Your task to perform on an android device: toggle airplane mode Image 0: 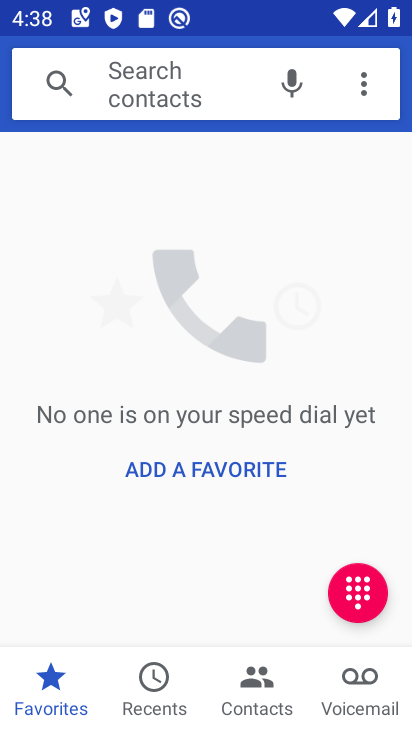
Step 0: press back button
Your task to perform on an android device: toggle airplane mode Image 1: 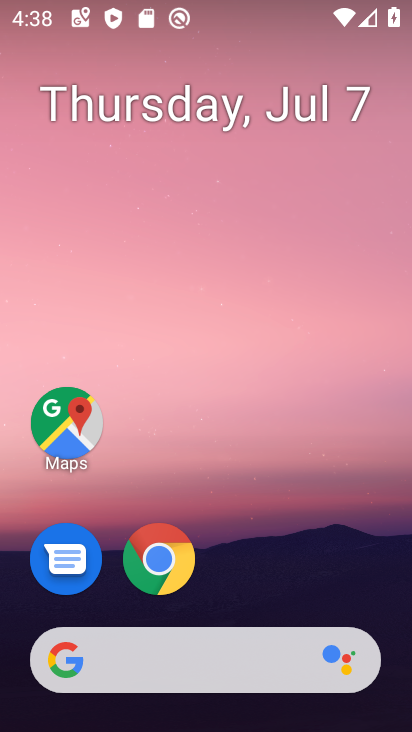
Step 1: drag from (290, 12) to (235, 671)
Your task to perform on an android device: toggle airplane mode Image 2: 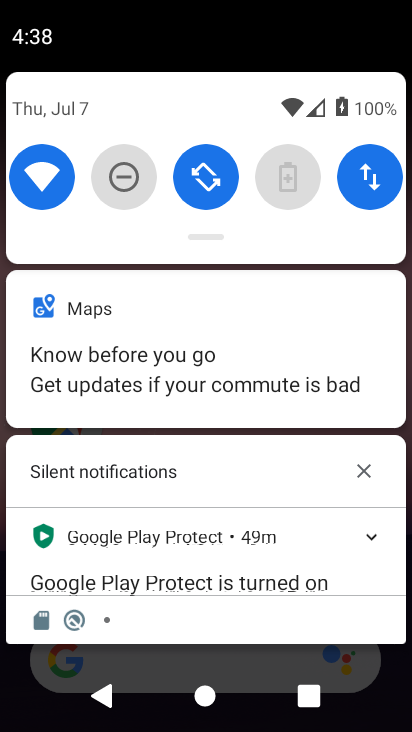
Step 2: drag from (213, 243) to (204, 698)
Your task to perform on an android device: toggle airplane mode Image 3: 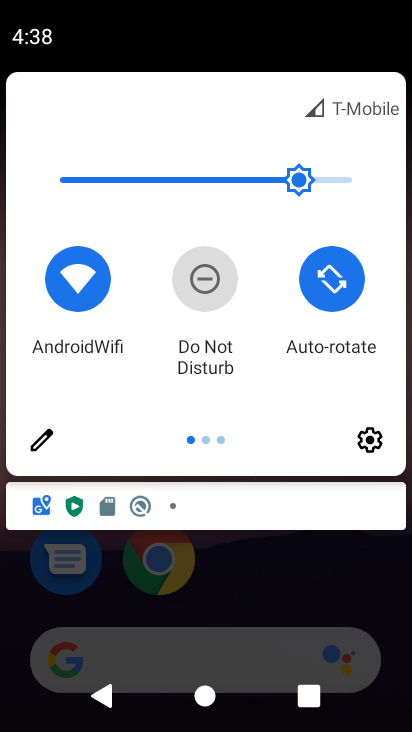
Step 3: drag from (330, 253) to (18, 296)
Your task to perform on an android device: toggle airplane mode Image 4: 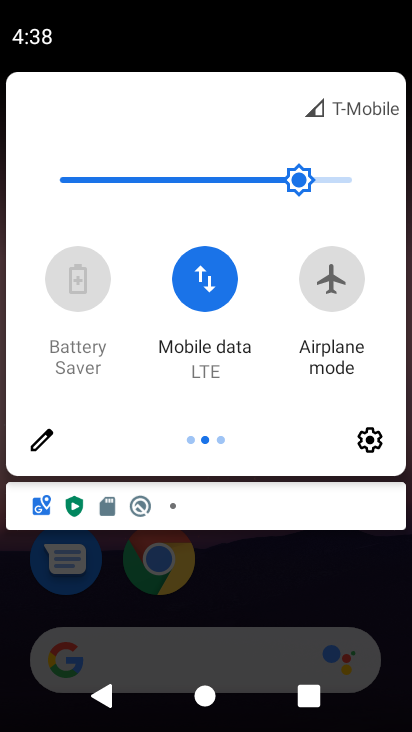
Step 4: click (333, 277)
Your task to perform on an android device: toggle airplane mode Image 5: 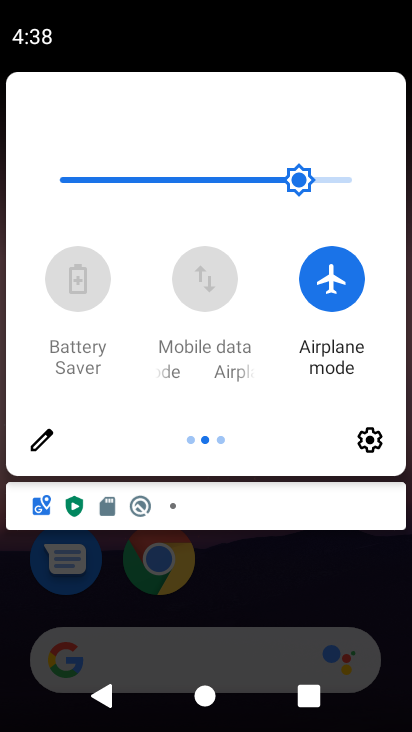
Step 5: task complete